Your task to perform on an android device: see creations saved in the google photos Image 0: 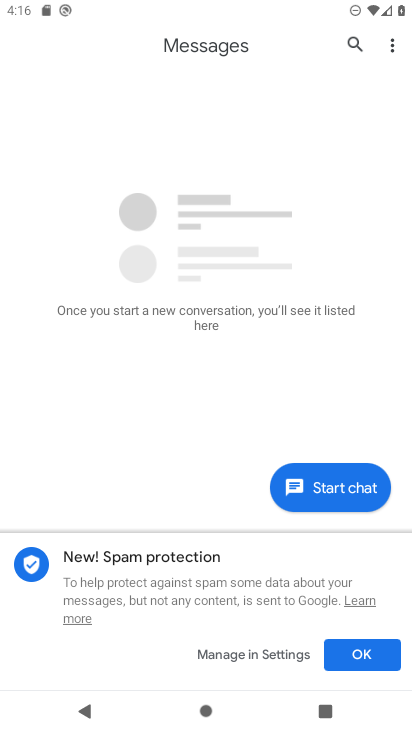
Step 0: press home button
Your task to perform on an android device: see creations saved in the google photos Image 1: 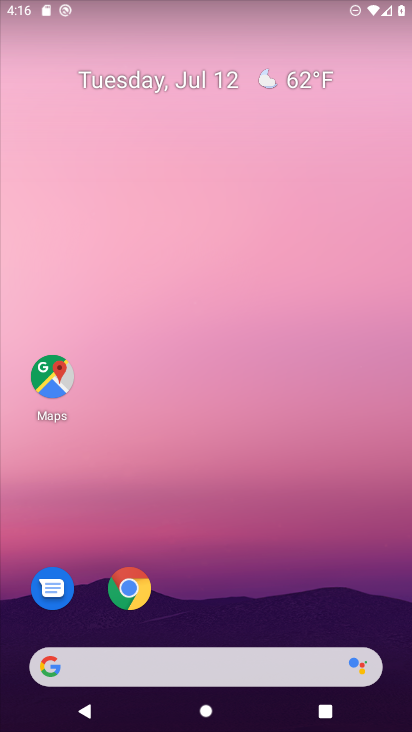
Step 1: drag from (205, 600) to (235, 62)
Your task to perform on an android device: see creations saved in the google photos Image 2: 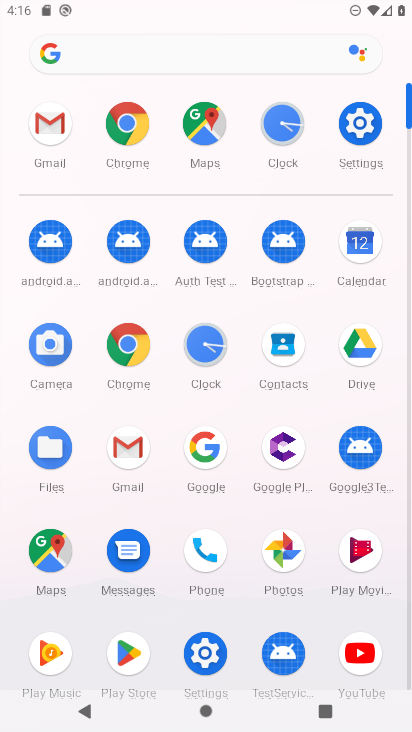
Step 2: click (284, 558)
Your task to perform on an android device: see creations saved in the google photos Image 3: 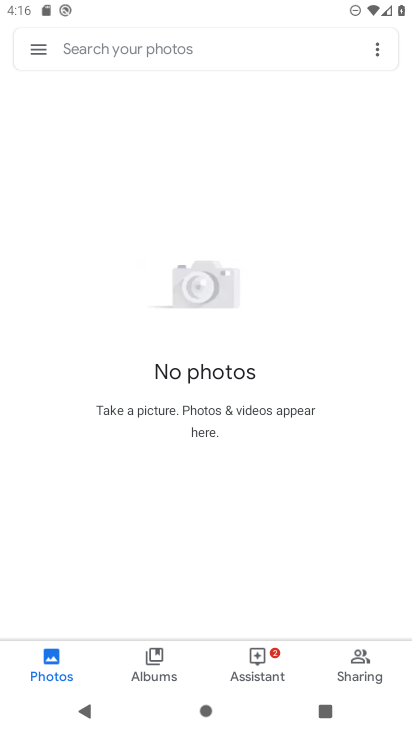
Step 3: click (191, 39)
Your task to perform on an android device: see creations saved in the google photos Image 4: 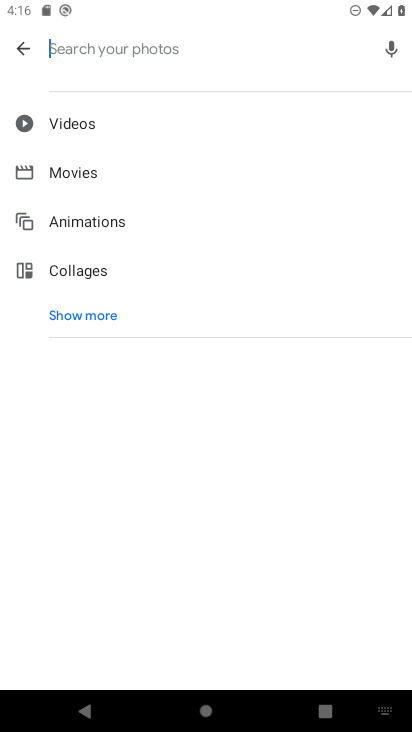
Step 4: type "creations"
Your task to perform on an android device: see creations saved in the google photos Image 5: 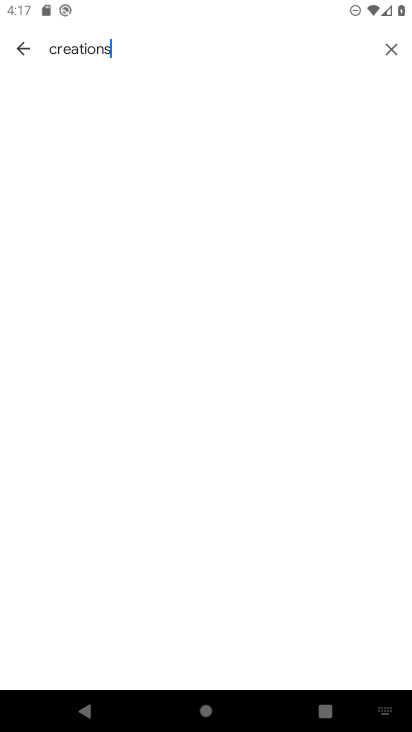
Step 5: task complete